Your task to perform on an android device: Open calendar and show me the second week of next month Image 0: 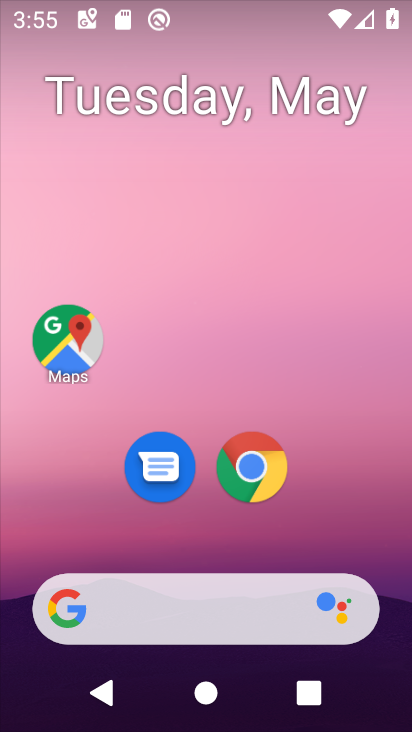
Step 0: drag from (302, 528) to (145, 60)
Your task to perform on an android device: Open calendar and show me the second week of next month Image 1: 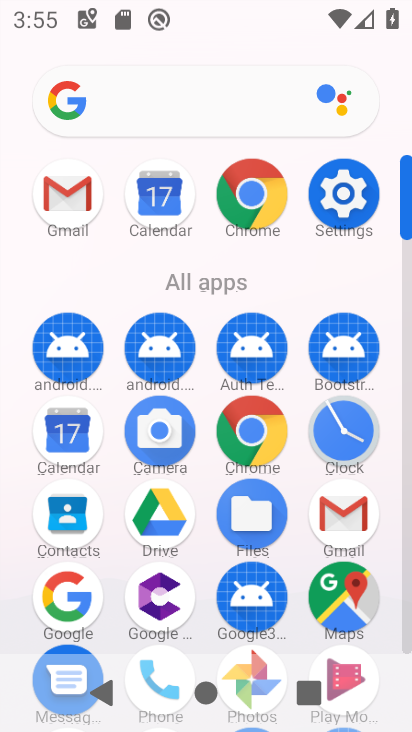
Step 1: click (165, 197)
Your task to perform on an android device: Open calendar and show me the second week of next month Image 2: 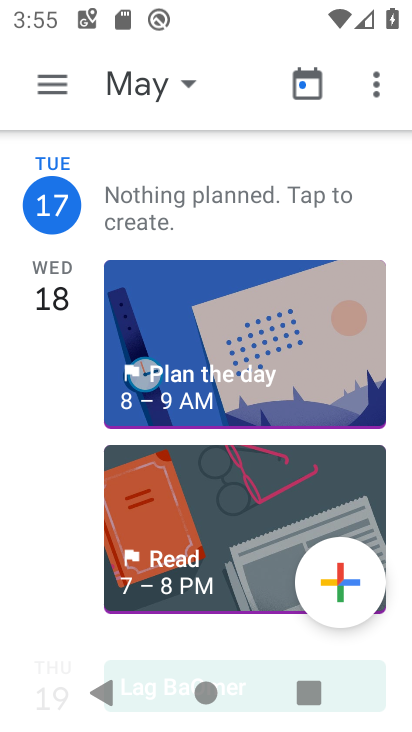
Step 2: click (61, 88)
Your task to perform on an android device: Open calendar and show me the second week of next month Image 3: 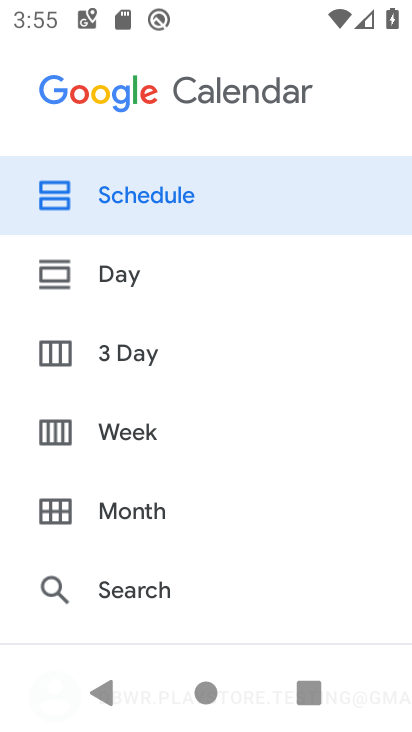
Step 3: click (165, 430)
Your task to perform on an android device: Open calendar and show me the second week of next month Image 4: 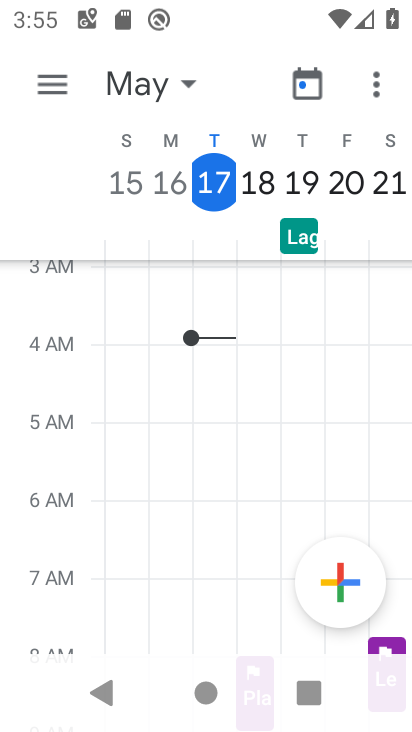
Step 4: click (137, 112)
Your task to perform on an android device: Open calendar and show me the second week of next month Image 5: 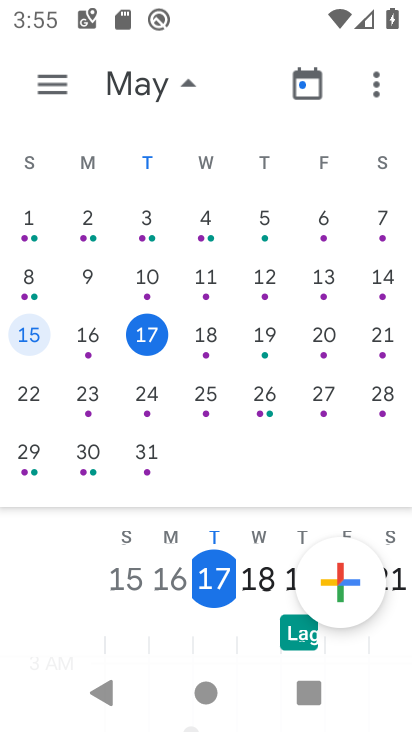
Step 5: click (127, 102)
Your task to perform on an android device: Open calendar and show me the second week of next month Image 6: 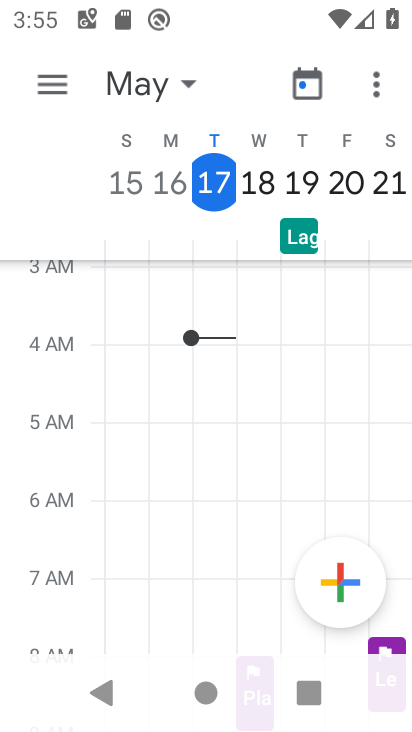
Step 6: drag from (336, 218) to (18, 240)
Your task to perform on an android device: Open calendar and show me the second week of next month Image 7: 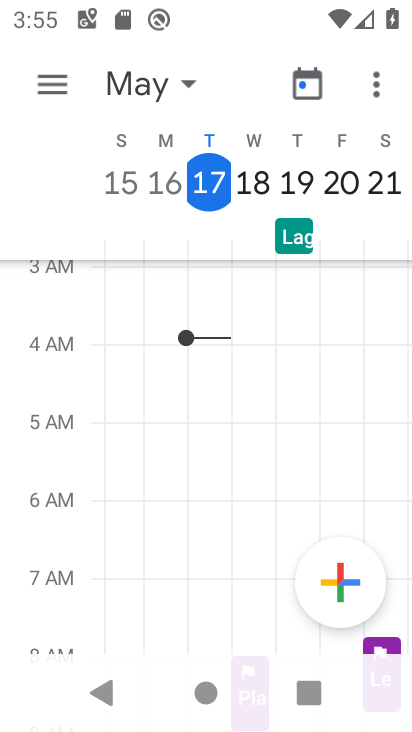
Step 7: click (161, 94)
Your task to perform on an android device: Open calendar and show me the second week of next month Image 8: 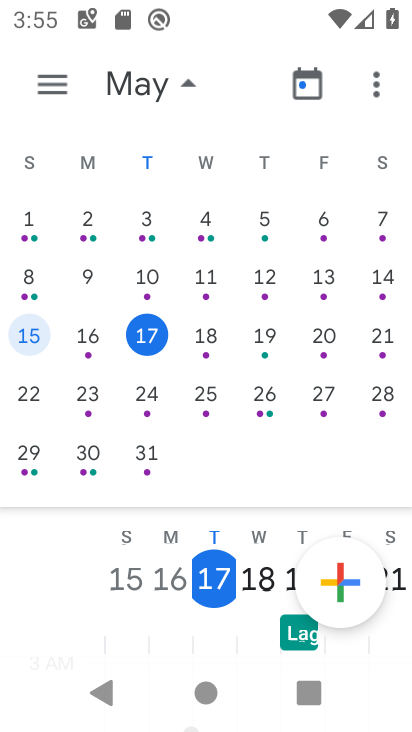
Step 8: drag from (403, 257) to (0, 325)
Your task to perform on an android device: Open calendar and show me the second week of next month Image 9: 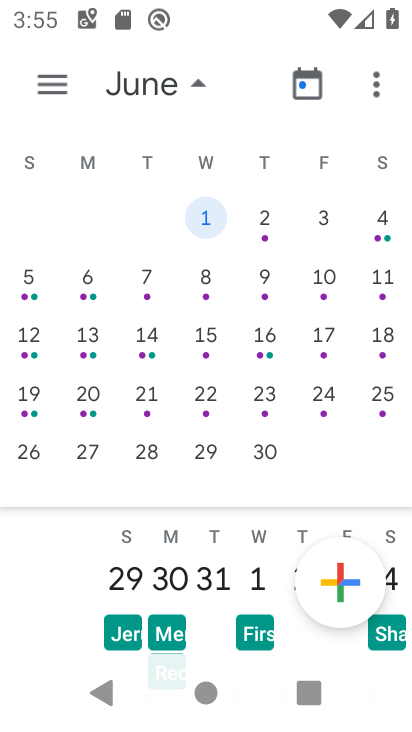
Step 9: click (33, 298)
Your task to perform on an android device: Open calendar and show me the second week of next month Image 10: 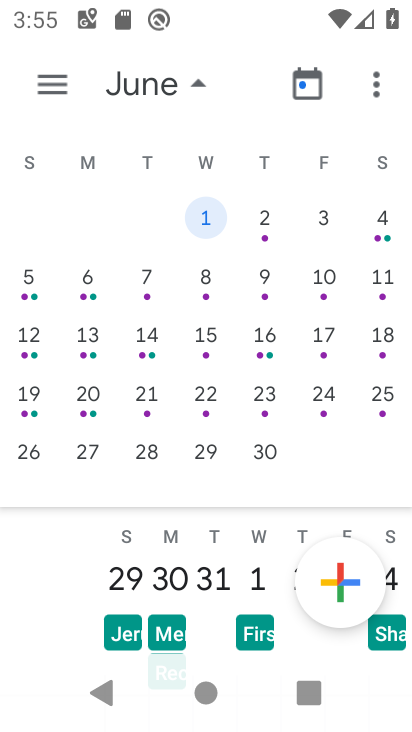
Step 10: click (33, 298)
Your task to perform on an android device: Open calendar and show me the second week of next month Image 11: 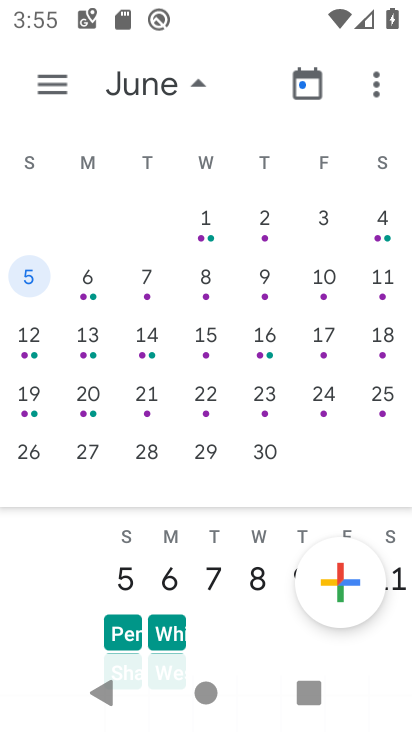
Step 11: drag from (208, 591) to (186, 379)
Your task to perform on an android device: Open calendar and show me the second week of next month Image 12: 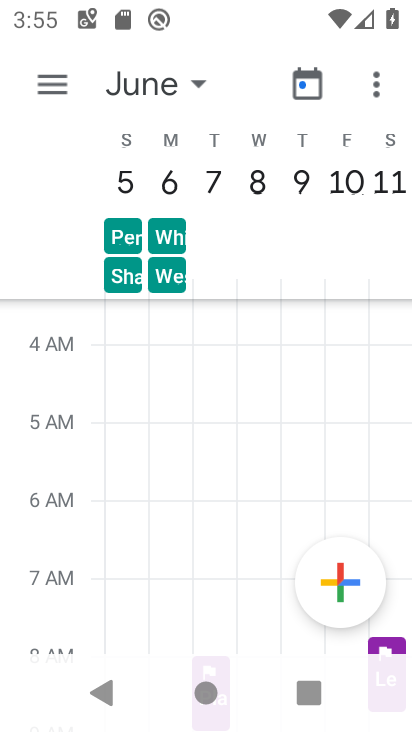
Step 12: drag from (235, 478) to (232, 219)
Your task to perform on an android device: Open calendar and show me the second week of next month Image 13: 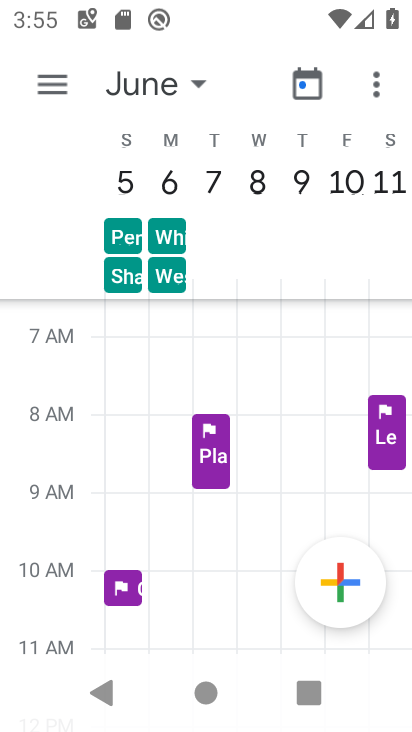
Step 13: click (240, 265)
Your task to perform on an android device: Open calendar and show me the second week of next month Image 14: 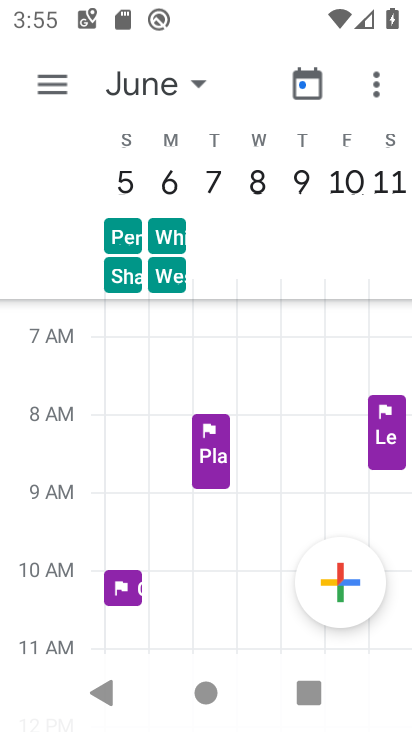
Step 14: task complete